Your task to perform on an android device: Go to settings Image 0: 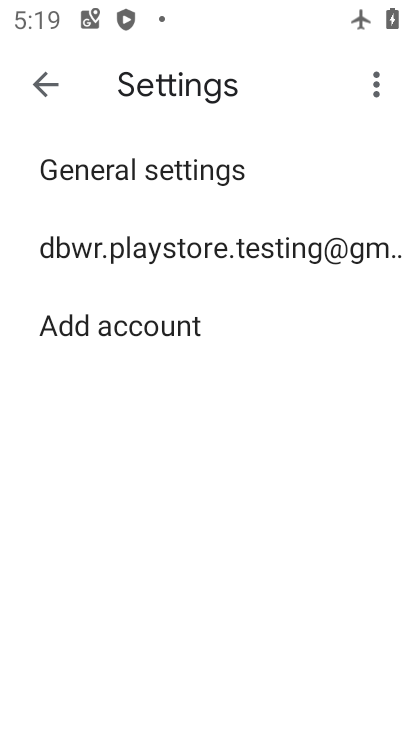
Step 0: press home button
Your task to perform on an android device: Go to settings Image 1: 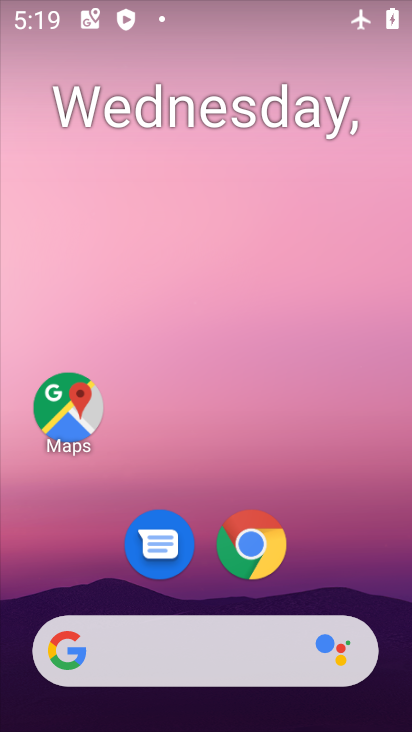
Step 1: drag from (403, 526) to (382, 66)
Your task to perform on an android device: Go to settings Image 2: 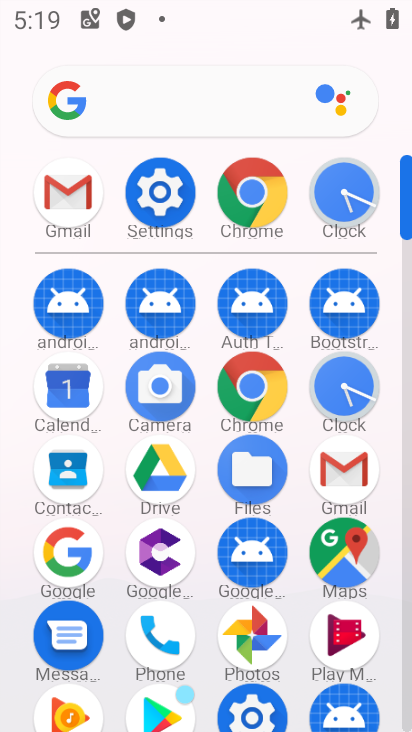
Step 2: click (118, 181)
Your task to perform on an android device: Go to settings Image 3: 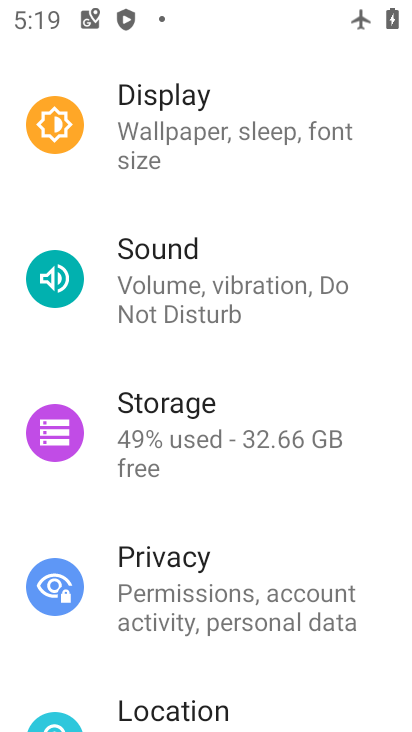
Step 3: task complete